Your task to perform on an android device: read, delete, or share a saved page in the chrome app Image 0: 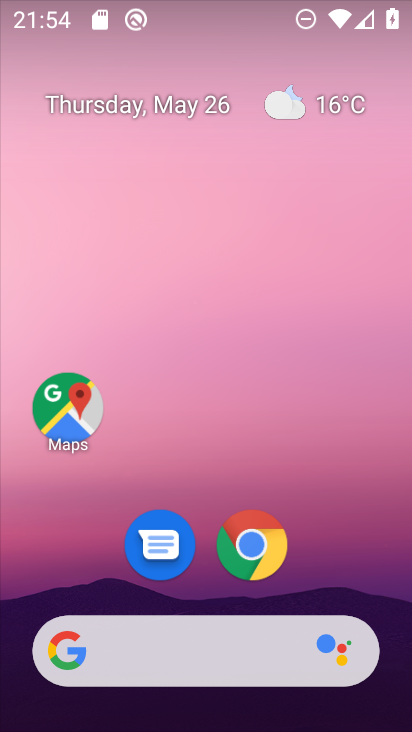
Step 0: click (248, 537)
Your task to perform on an android device: read, delete, or share a saved page in the chrome app Image 1: 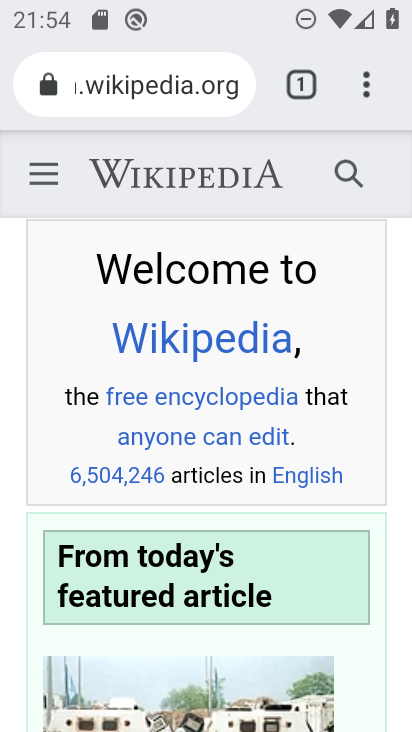
Step 1: click (353, 86)
Your task to perform on an android device: read, delete, or share a saved page in the chrome app Image 2: 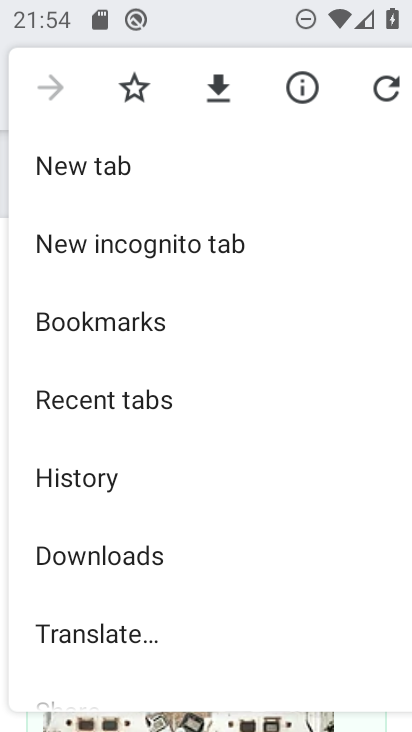
Step 2: drag from (166, 654) to (177, 422)
Your task to perform on an android device: read, delete, or share a saved page in the chrome app Image 3: 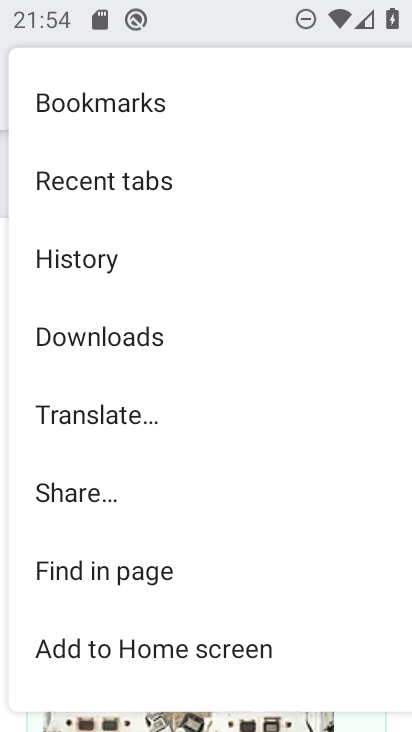
Step 3: click (101, 347)
Your task to perform on an android device: read, delete, or share a saved page in the chrome app Image 4: 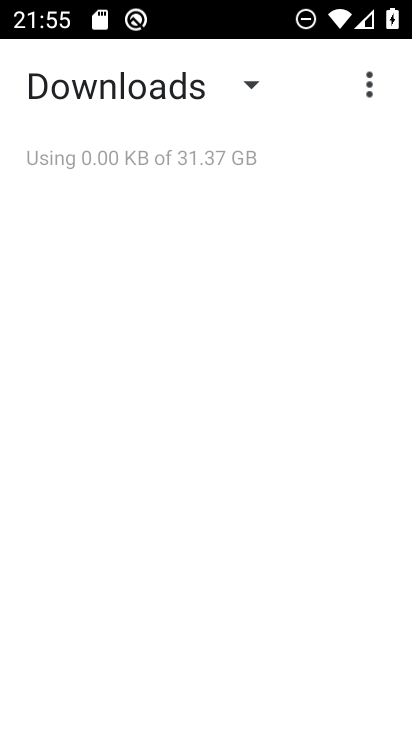
Step 4: task complete